Your task to perform on an android device: Open Chrome and go to settings Image 0: 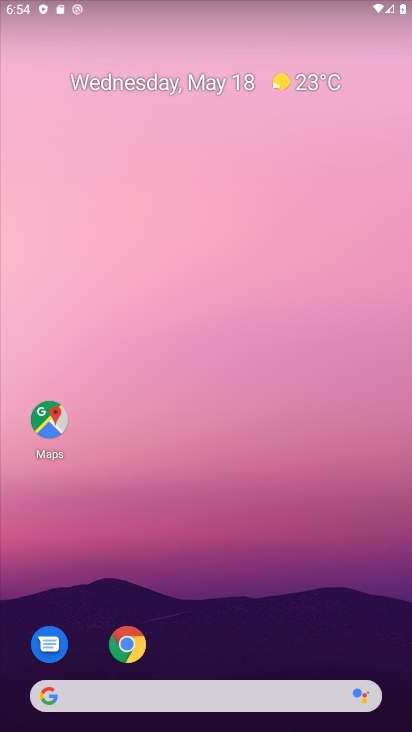
Step 0: click (132, 640)
Your task to perform on an android device: Open Chrome and go to settings Image 1: 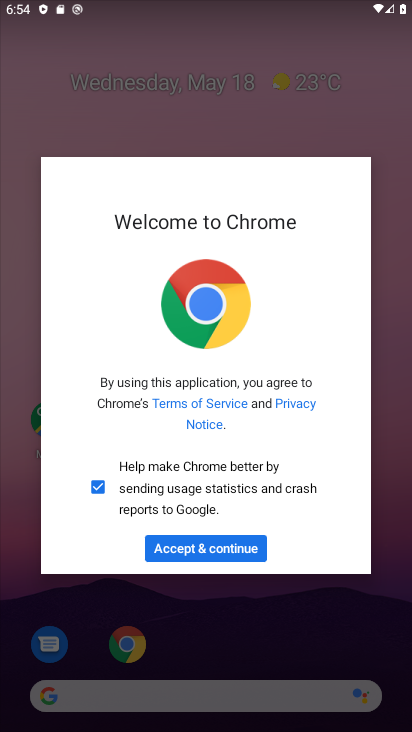
Step 1: click (244, 541)
Your task to perform on an android device: Open Chrome and go to settings Image 2: 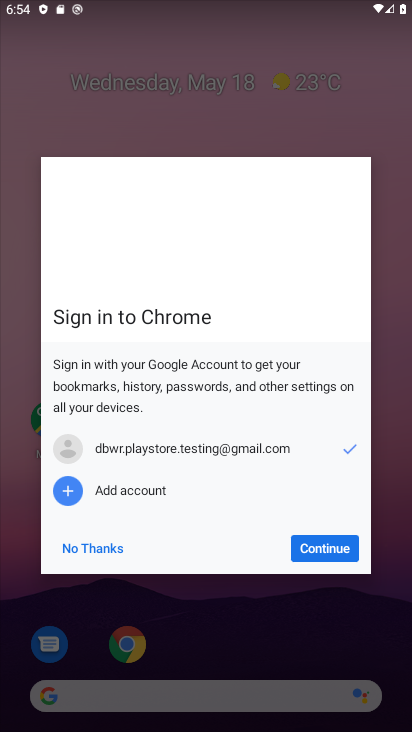
Step 2: click (328, 547)
Your task to perform on an android device: Open Chrome and go to settings Image 3: 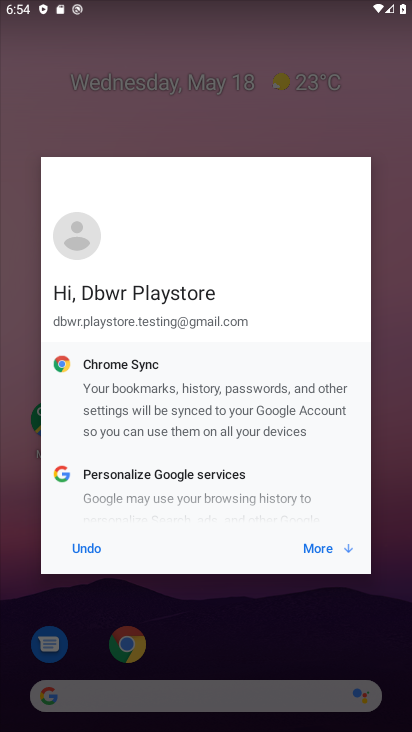
Step 3: click (327, 548)
Your task to perform on an android device: Open Chrome and go to settings Image 4: 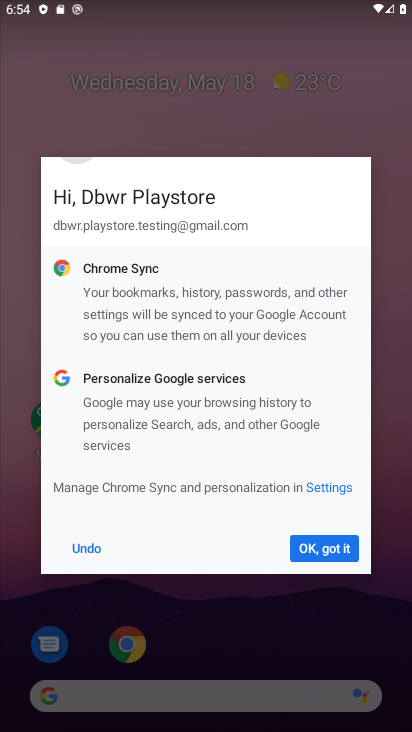
Step 4: click (327, 547)
Your task to perform on an android device: Open Chrome and go to settings Image 5: 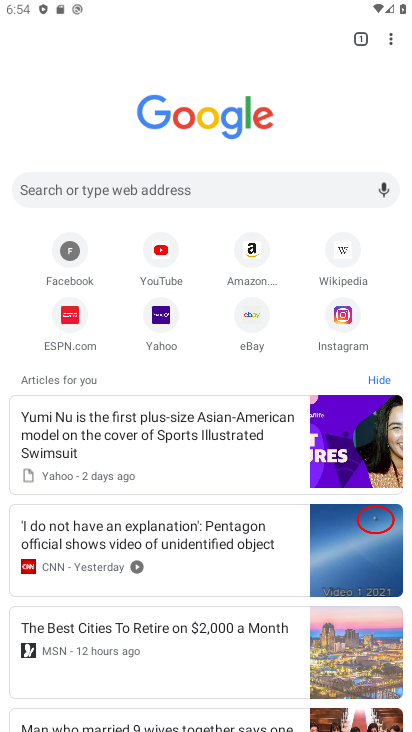
Step 5: click (392, 43)
Your task to perform on an android device: Open Chrome and go to settings Image 6: 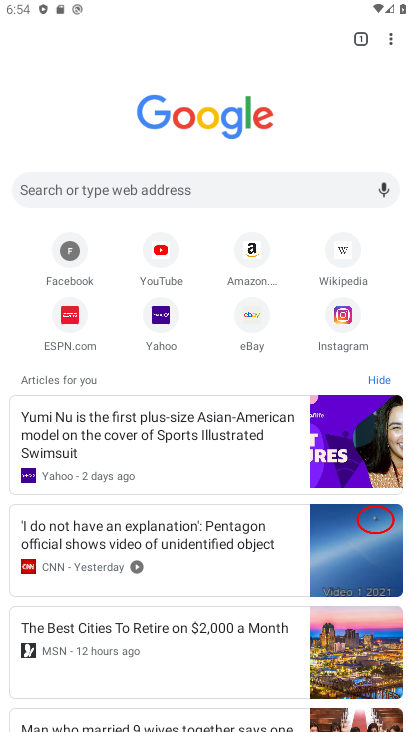
Step 6: click (392, 50)
Your task to perform on an android device: Open Chrome and go to settings Image 7: 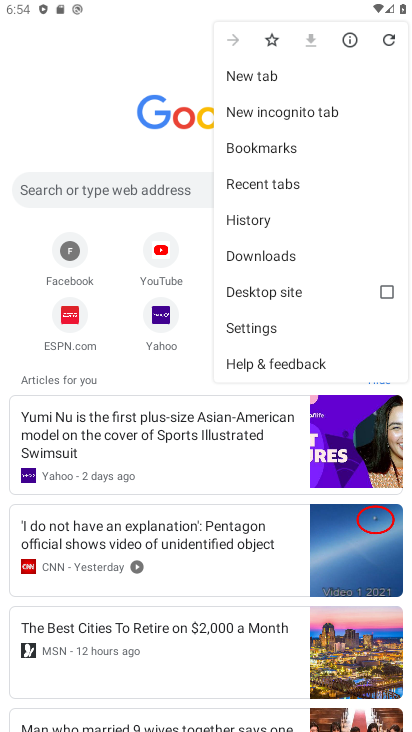
Step 7: click (268, 331)
Your task to perform on an android device: Open Chrome and go to settings Image 8: 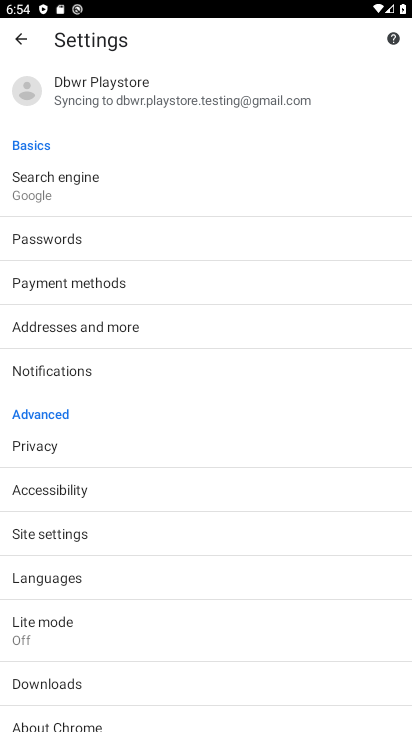
Step 8: task complete